Your task to perform on an android device: Open settings on Google Maps Image 0: 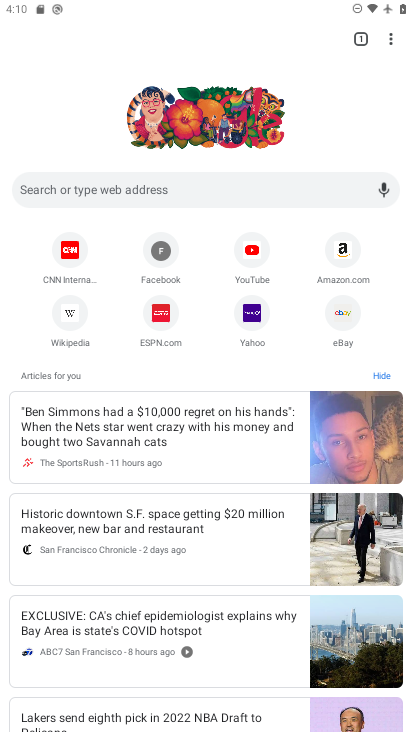
Step 0: press back button
Your task to perform on an android device: Open settings on Google Maps Image 1: 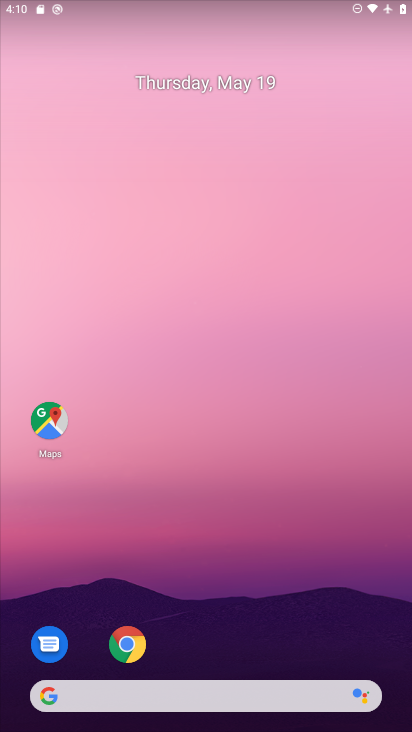
Step 1: drag from (304, 572) to (235, 17)
Your task to perform on an android device: Open settings on Google Maps Image 2: 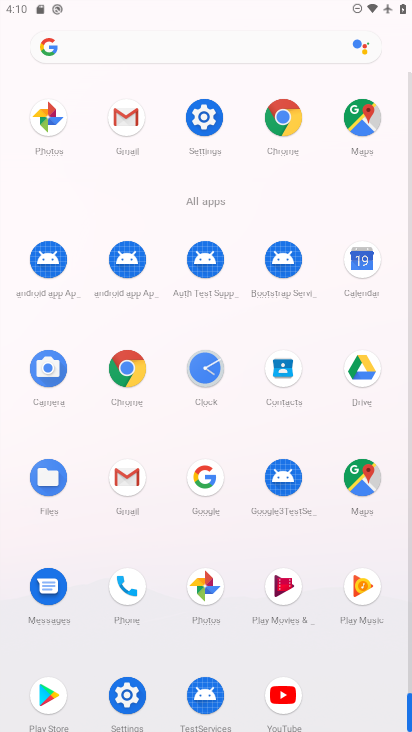
Step 2: click (362, 475)
Your task to perform on an android device: Open settings on Google Maps Image 3: 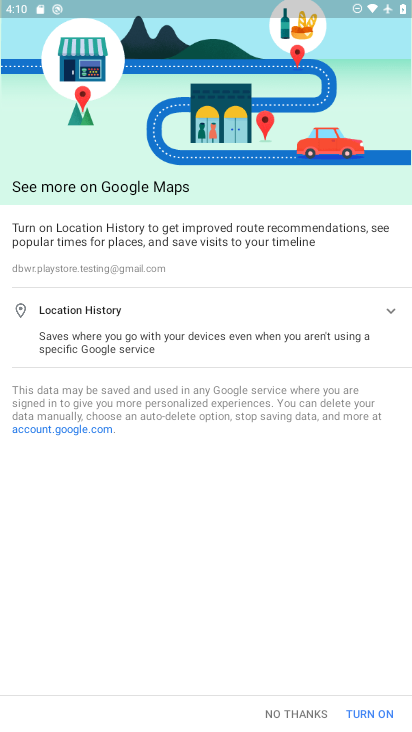
Step 3: click (353, 708)
Your task to perform on an android device: Open settings on Google Maps Image 4: 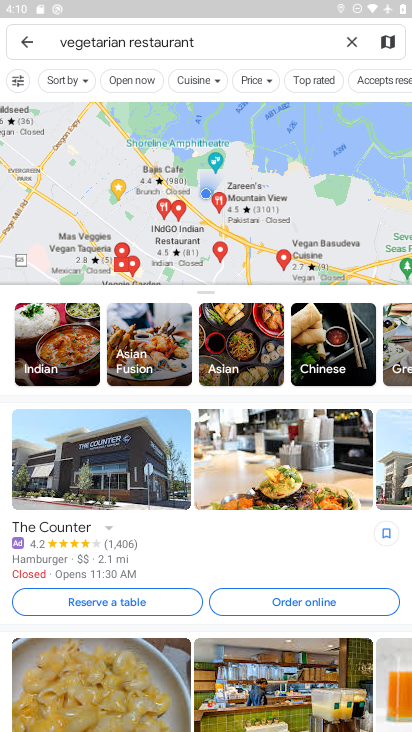
Step 4: click (356, 42)
Your task to perform on an android device: Open settings on Google Maps Image 5: 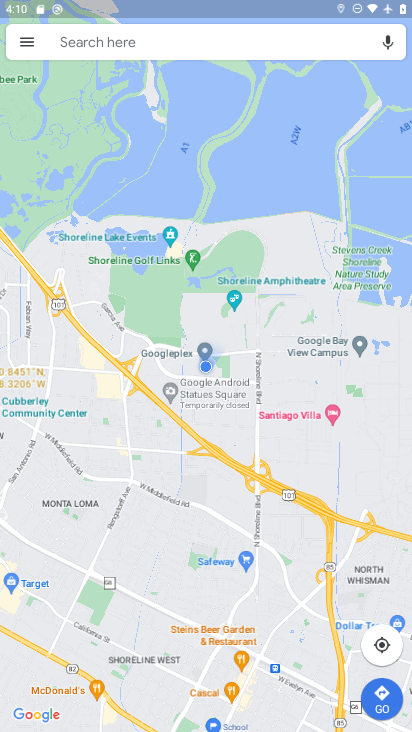
Step 5: task complete